Your task to perform on an android device: toggle pop-ups in chrome Image 0: 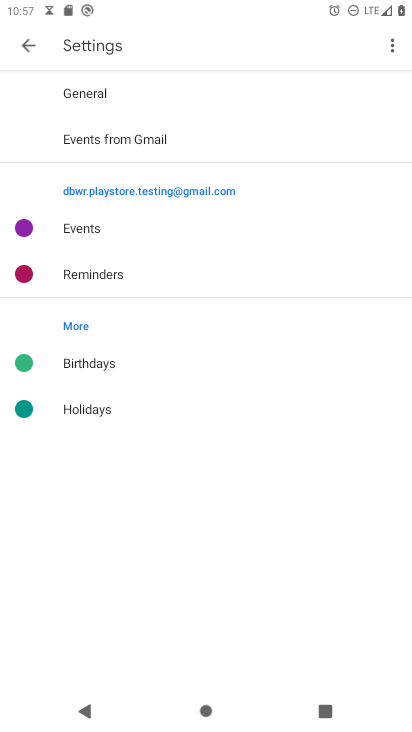
Step 0: press back button
Your task to perform on an android device: toggle pop-ups in chrome Image 1: 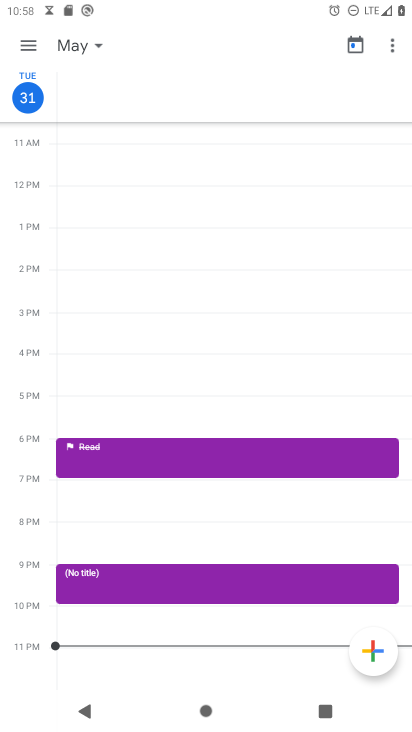
Step 1: press home button
Your task to perform on an android device: toggle pop-ups in chrome Image 2: 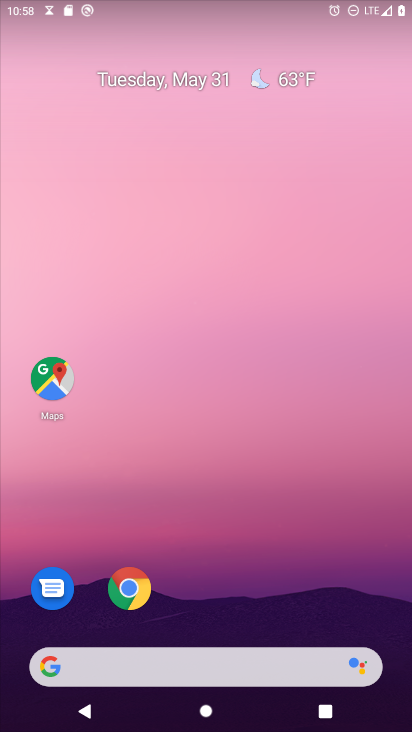
Step 2: click (128, 590)
Your task to perform on an android device: toggle pop-ups in chrome Image 3: 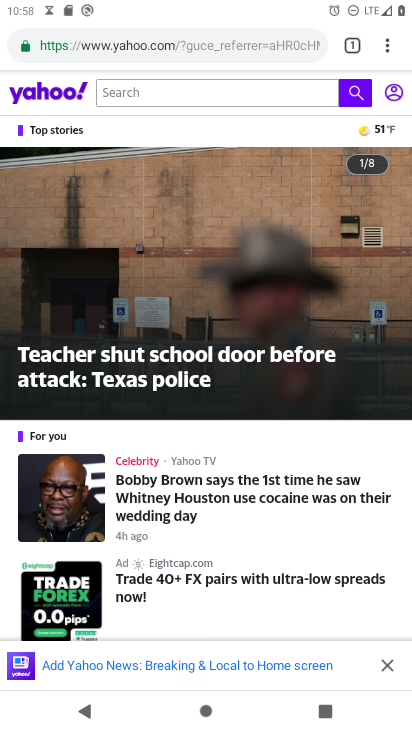
Step 3: click (386, 46)
Your task to perform on an android device: toggle pop-ups in chrome Image 4: 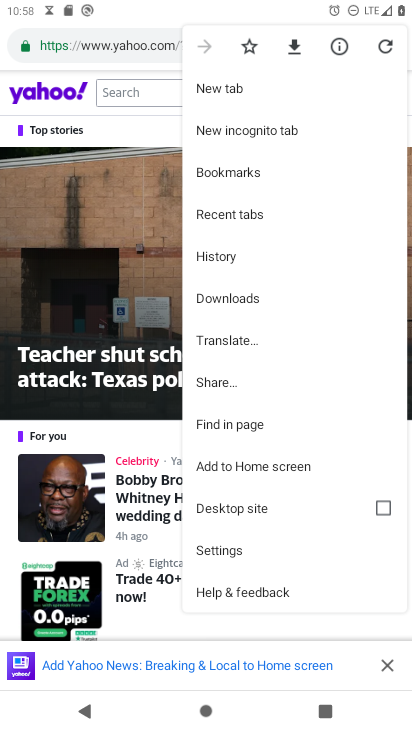
Step 4: click (228, 550)
Your task to perform on an android device: toggle pop-ups in chrome Image 5: 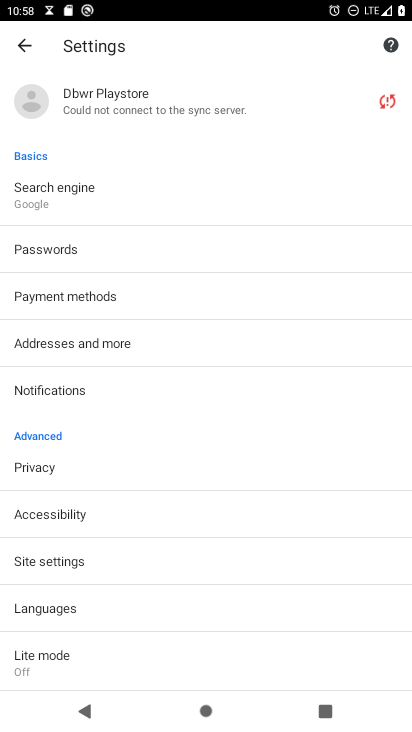
Step 5: click (56, 562)
Your task to perform on an android device: toggle pop-ups in chrome Image 6: 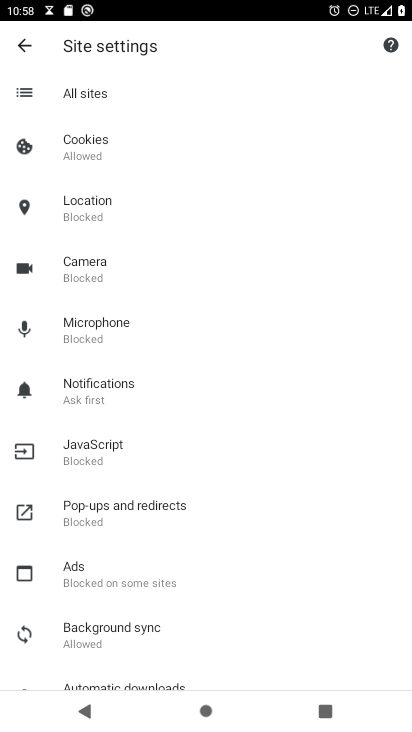
Step 6: click (166, 494)
Your task to perform on an android device: toggle pop-ups in chrome Image 7: 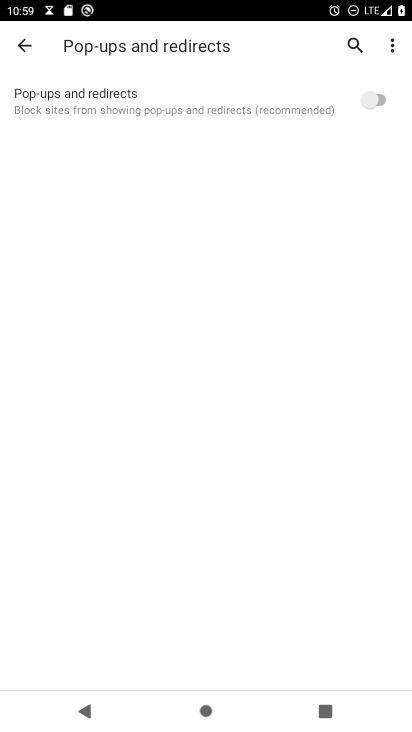
Step 7: click (380, 103)
Your task to perform on an android device: toggle pop-ups in chrome Image 8: 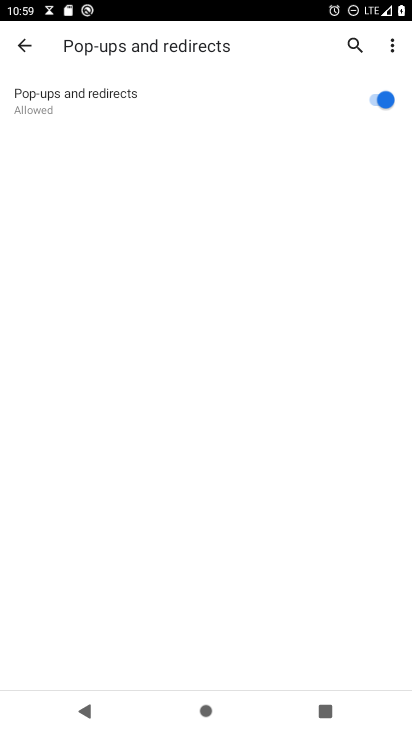
Step 8: task complete